Your task to perform on an android device: What's the weather today? Image 0: 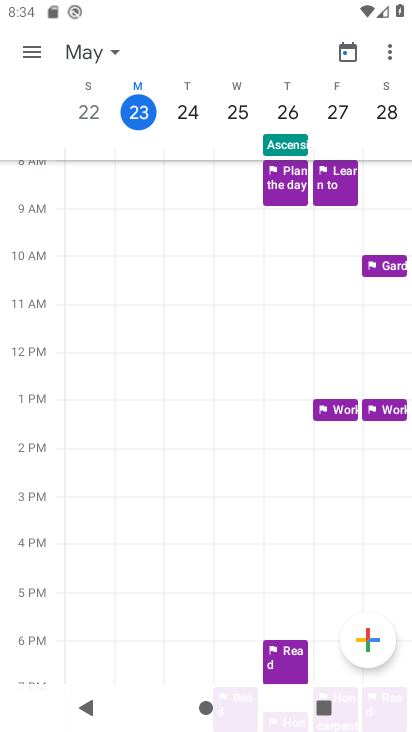
Step 0: press home button
Your task to perform on an android device: What's the weather today? Image 1: 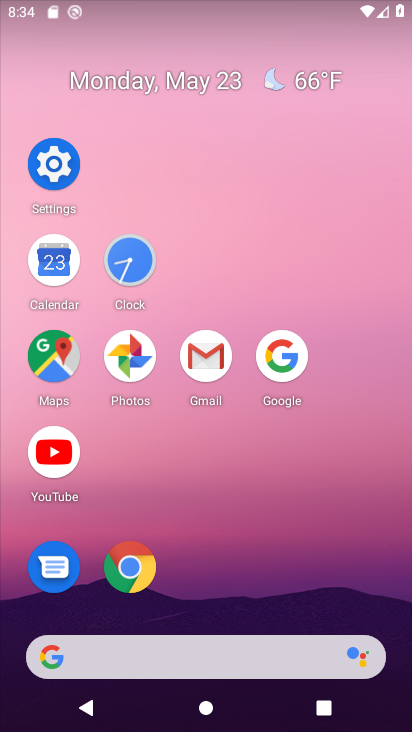
Step 1: click (297, 366)
Your task to perform on an android device: What's the weather today? Image 2: 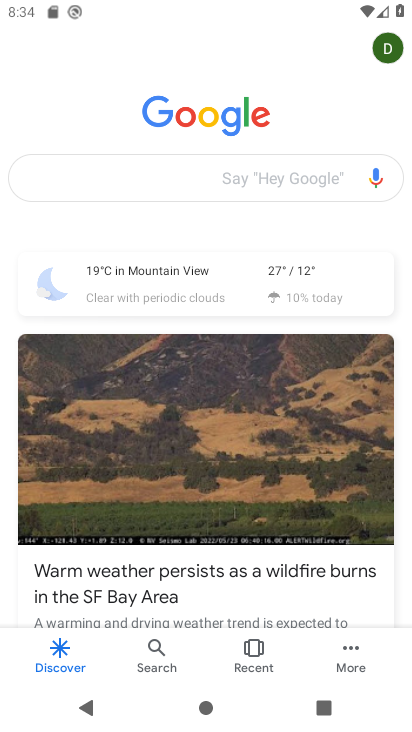
Step 2: click (146, 285)
Your task to perform on an android device: What's the weather today? Image 3: 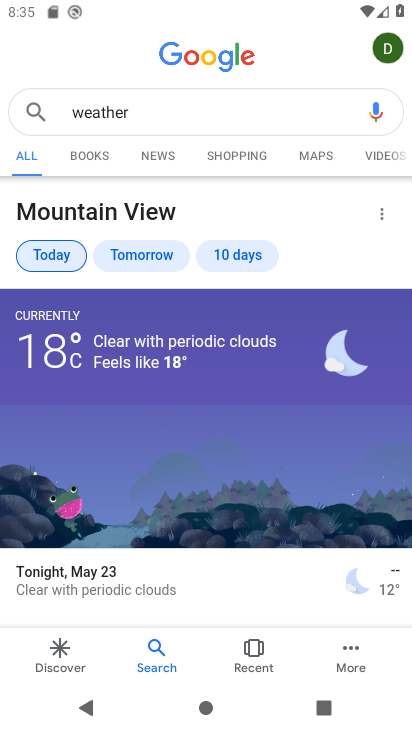
Step 3: task complete